Your task to perform on an android device: Go to settings Image 0: 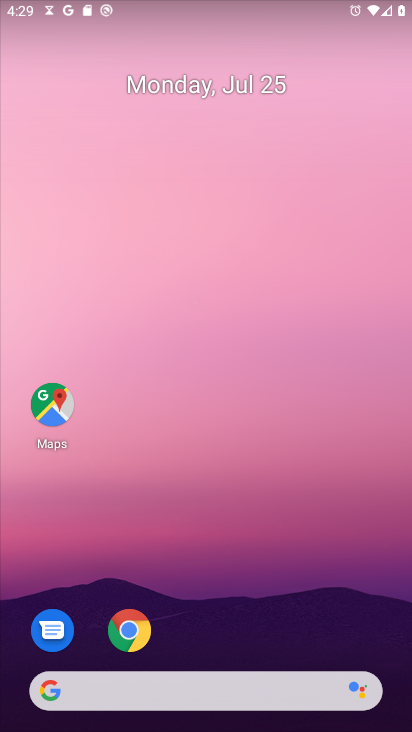
Step 0: drag from (195, 697) to (266, 234)
Your task to perform on an android device: Go to settings Image 1: 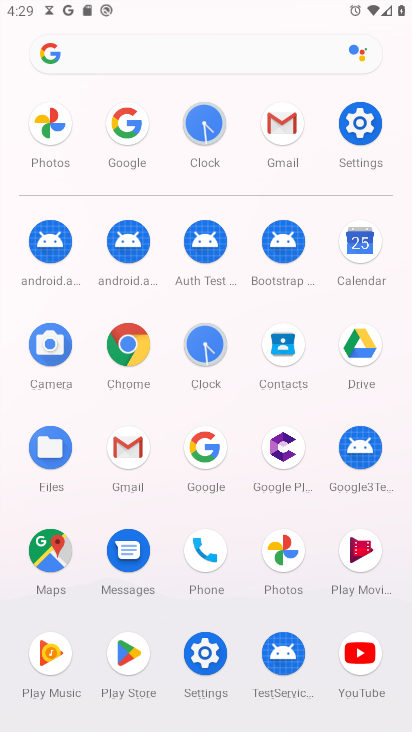
Step 1: click (203, 649)
Your task to perform on an android device: Go to settings Image 2: 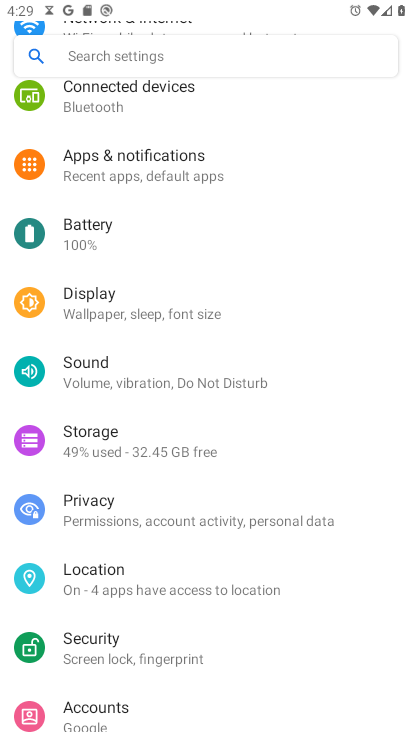
Step 2: task complete